Your task to perform on an android device: Open ESPN.com Image 0: 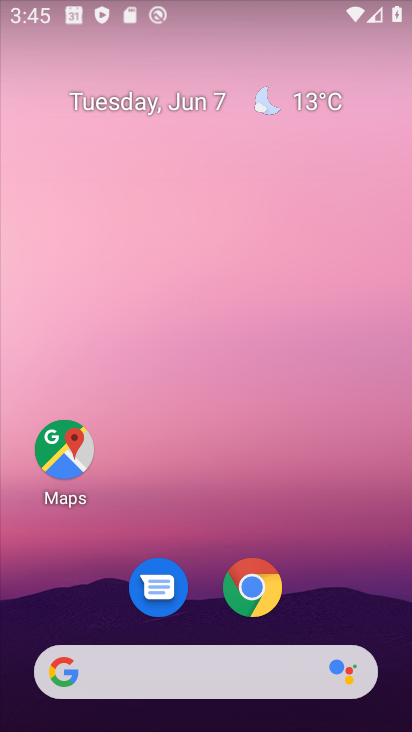
Step 0: click (279, 202)
Your task to perform on an android device: Open ESPN.com Image 1: 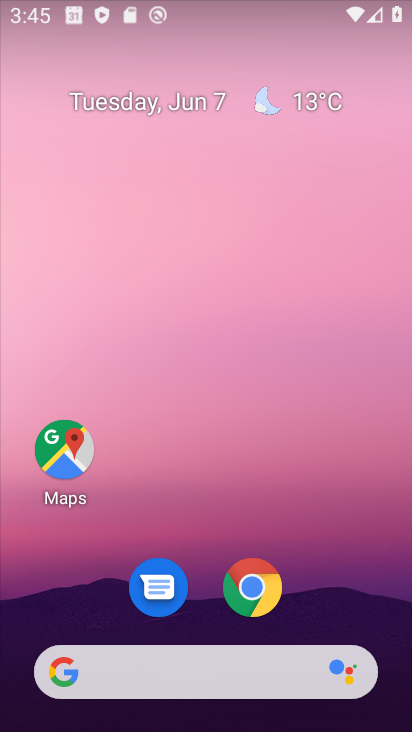
Step 1: drag from (202, 597) to (249, 191)
Your task to perform on an android device: Open ESPN.com Image 2: 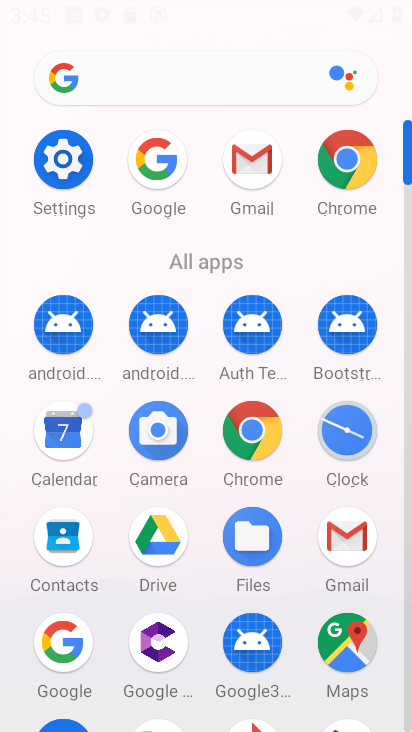
Step 2: click (362, 166)
Your task to perform on an android device: Open ESPN.com Image 3: 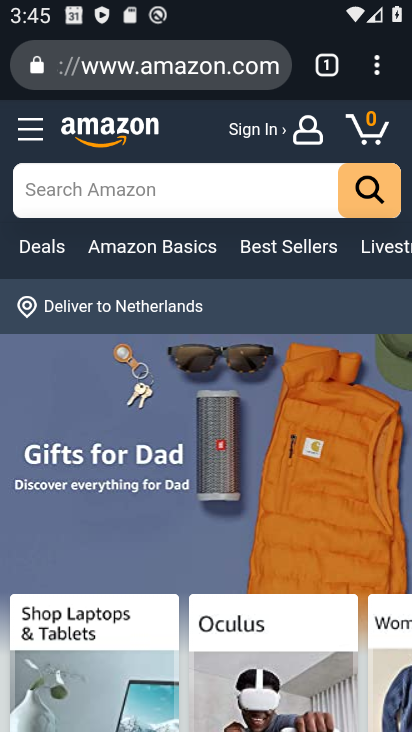
Step 3: click (251, 69)
Your task to perform on an android device: Open ESPN.com Image 4: 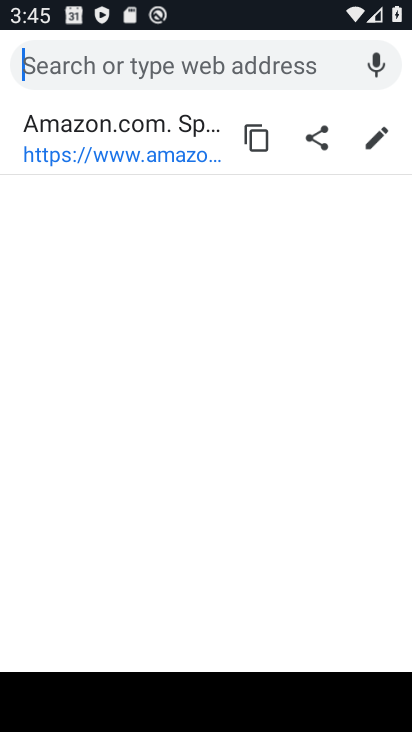
Step 4: type "espn"
Your task to perform on an android device: Open ESPN.com Image 5: 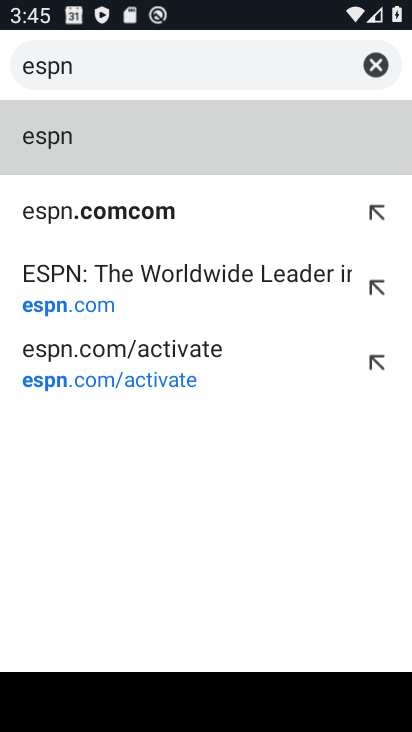
Step 5: click (123, 279)
Your task to perform on an android device: Open ESPN.com Image 6: 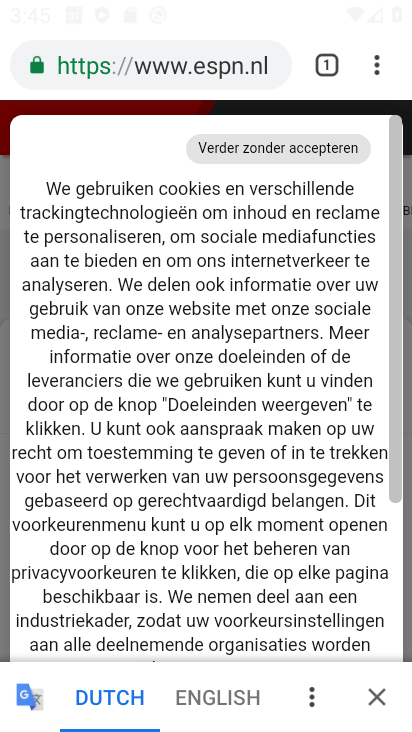
Step 6: task complete